Your task to perform on an android device: Do I have any events today? Image 0: 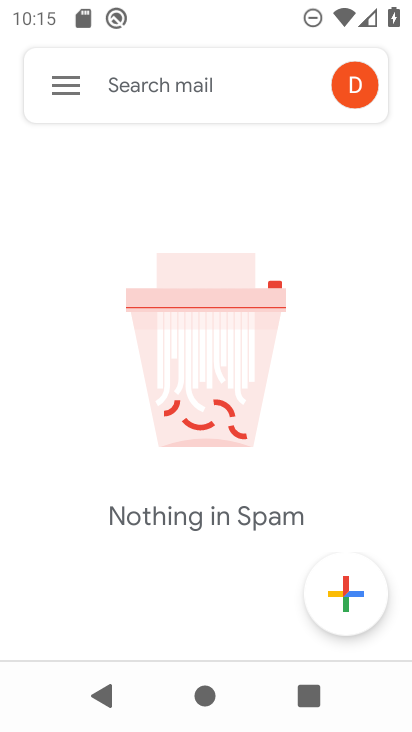
Step 0: press home button
Your task to perform on an android device: Do I have any events today? Image 1: 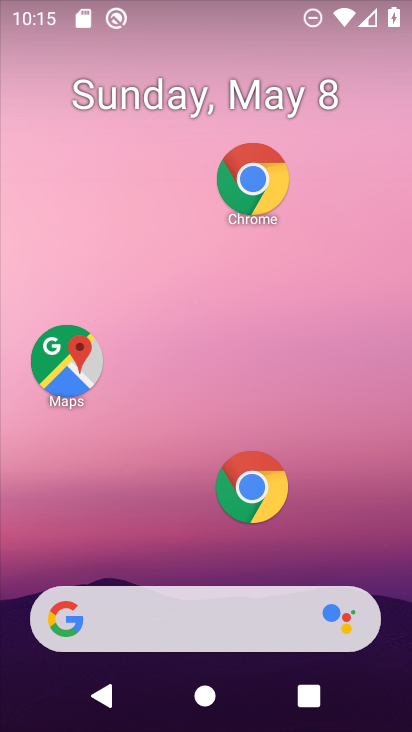
Step 1: drag from (156, 527) to (226, 2)
Your task to perform on an android device: Do I have any events today? Image 2: 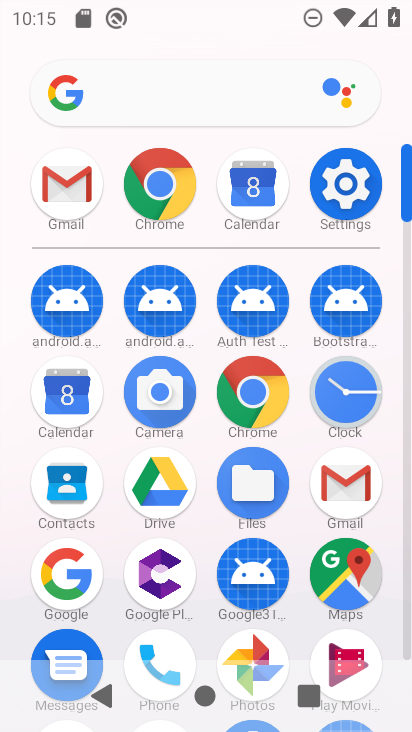
Step 2: click (76, 388)
Your task to perform on an android device: Do I have any events today? Image 3: 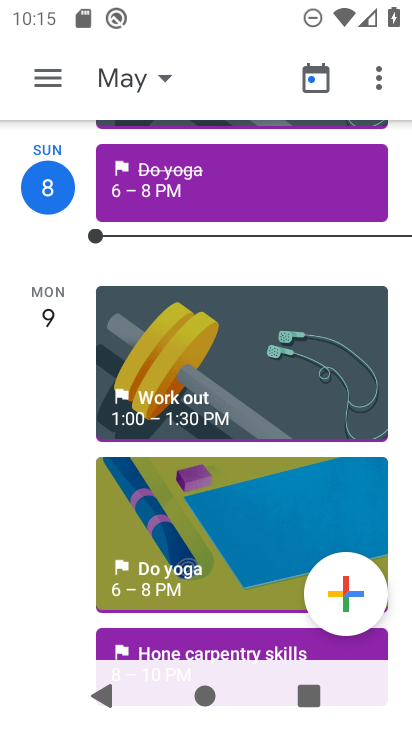
Step 3: task complete